Your task to perform on an android device: star an email in the gmail app Image 0: 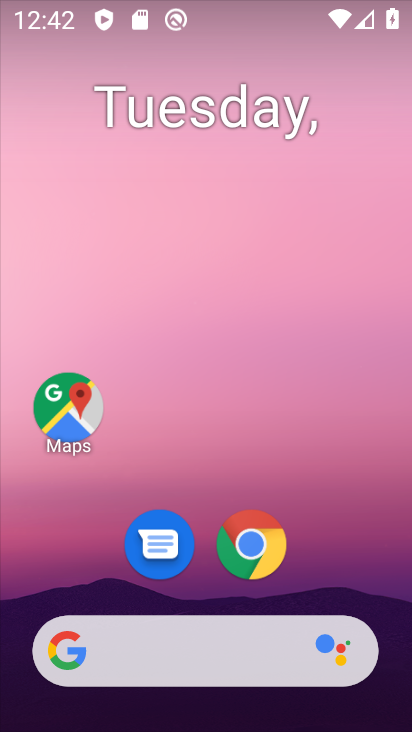
Step 0: drag from (387, 632) to (355, 224)
Your task to perform on an android device: star an email in the gmail app Image 1: 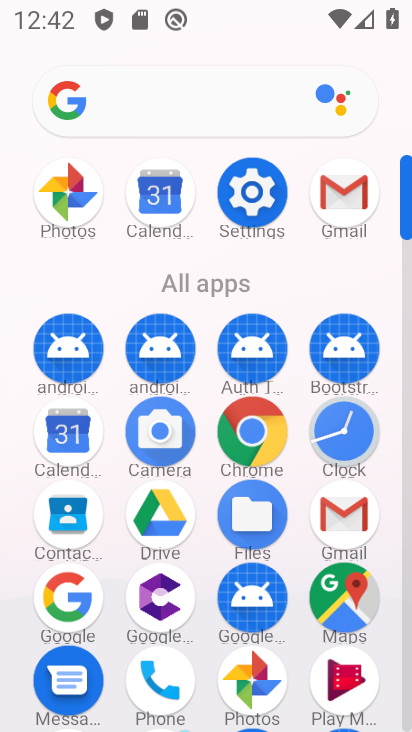
Step 1: click (408, 683)
Your task to perform on an android device: star an email in the gmail app Image 2: 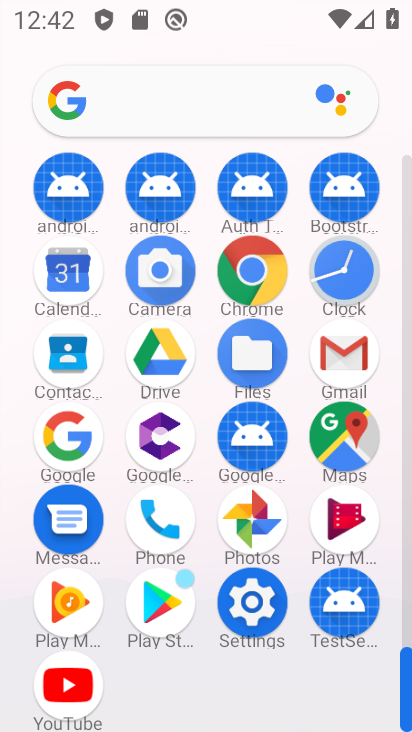
Step 2: click (340, 357)
Your task to perform on an android device: star an email in the gmail app Image 3: 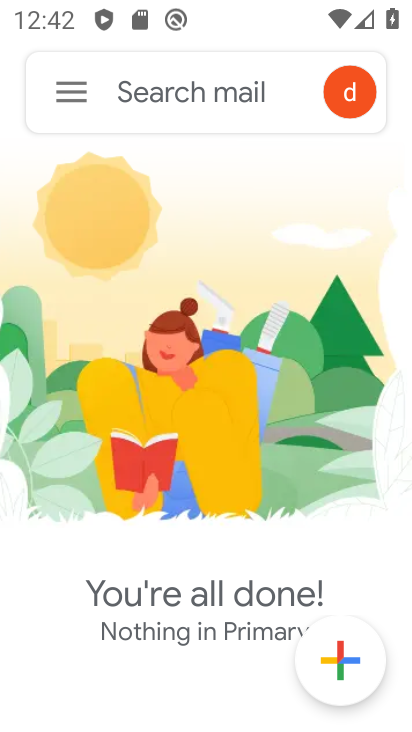
Step 3: click (65, 87)
Your task to perform on an android device: star an email in the gmail app Image 4: 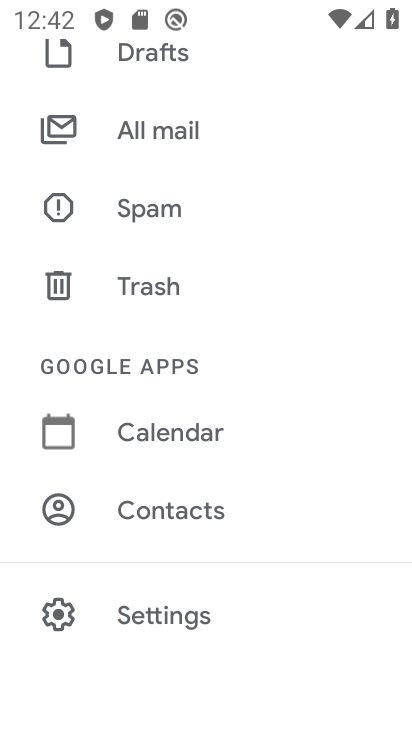
Step 4: click (152, 148)
Your task to perform on an android device: star an email in the gmail app Image 5: 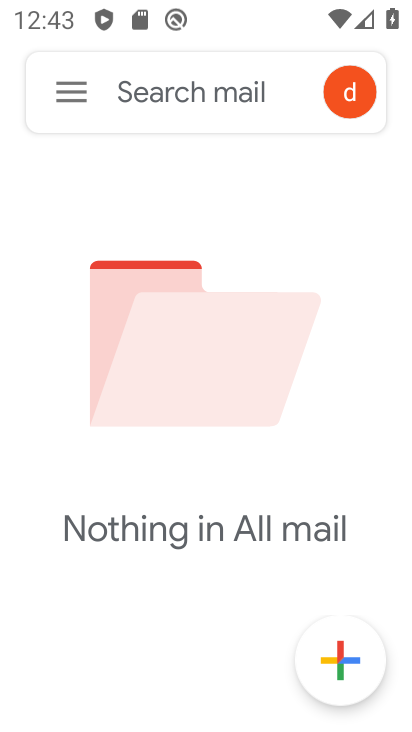
Step 5: task complete